Your task to perform on an android device: turn on showing notifications on the lock screen Image 0: 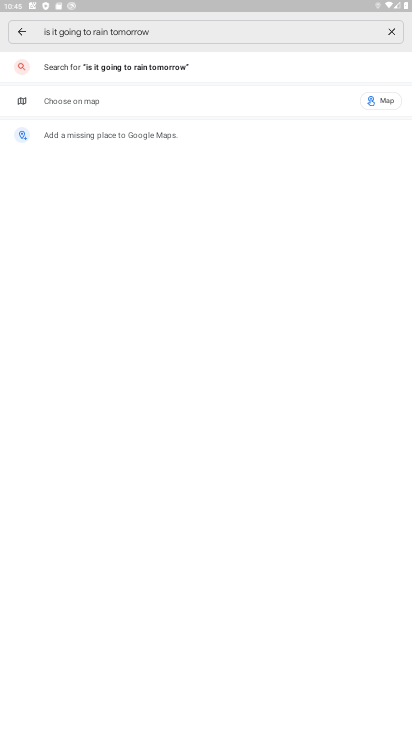
Step 0: press home button
Your task to perform on an android device: turn on showing notifications on the lock screen Image 1: 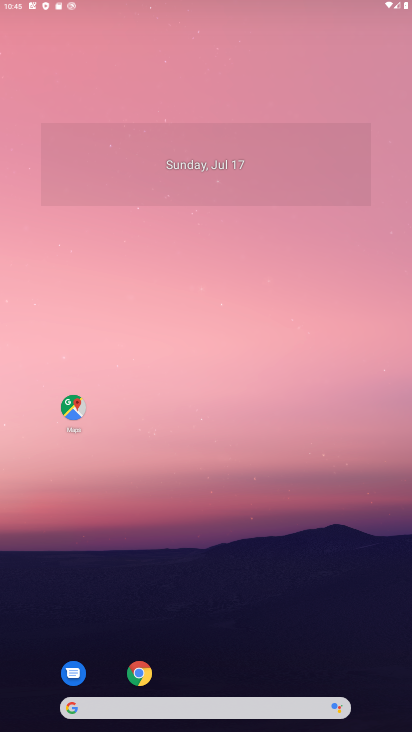
Step 1: drag from (206, 684) to (202, 128)
Your task to perform on an android device: turn on showing notifications on the lock screen Image 2: 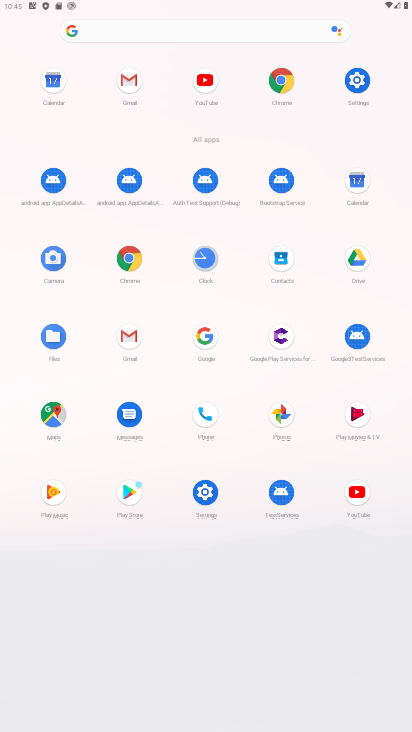
Step 2: click (365, 70)
Your task to perform on an android device: turn on showing notifications on the lock screen Image 3: 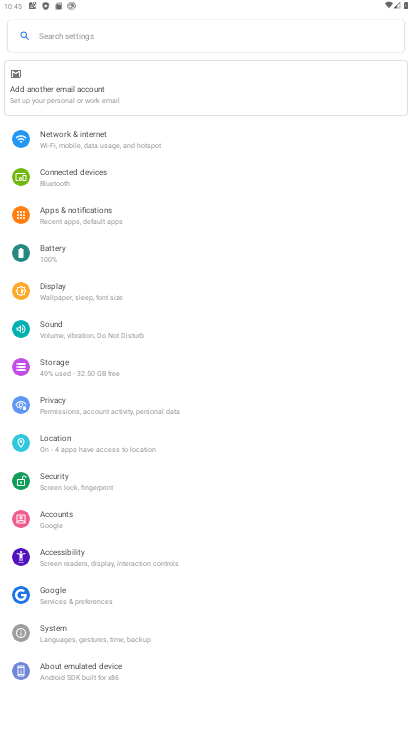
Step 3: click (83, 219)
Your task to perform on an android device: turn on showing notifications on the lock screen Image 4: 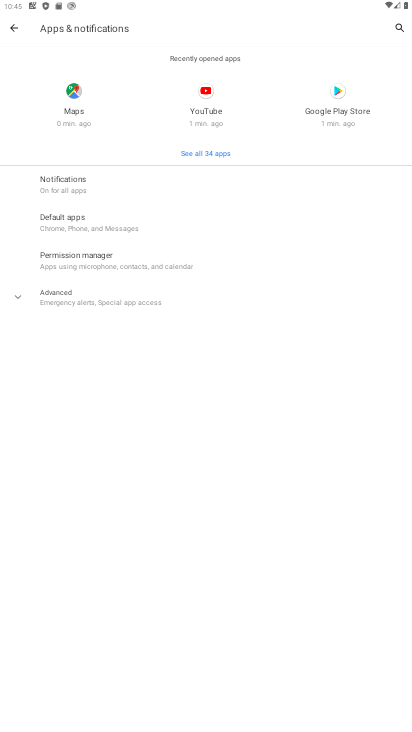
Step 4: click (94, 195)
Your task to perform on an android device: turn on showing notifications on the lock screen Image 5: 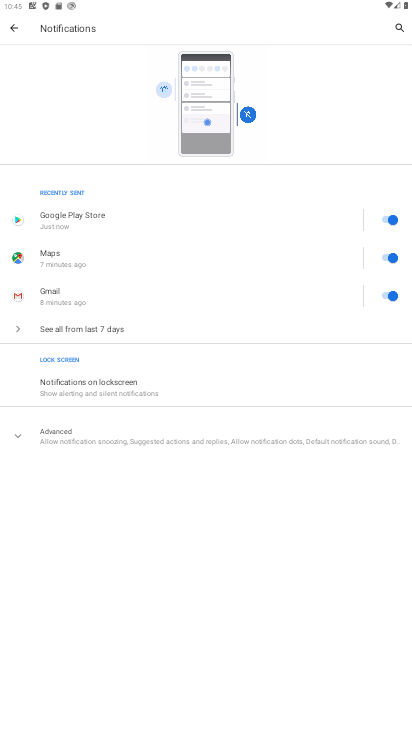
Step 5: click (118, 392)
Your task to perform on an android device: turn on showing notifications on the lock screen Image 6: 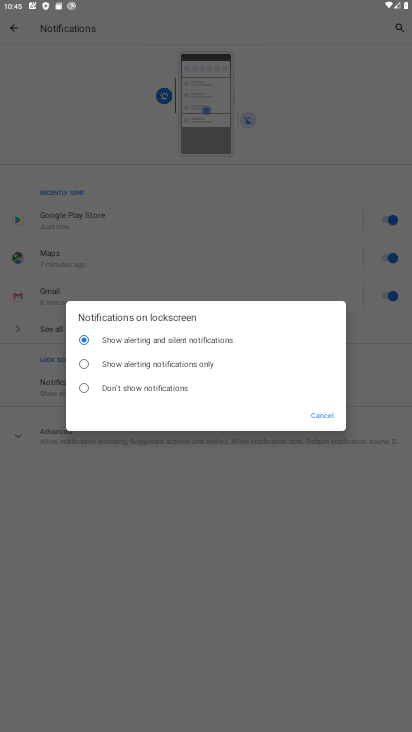
Step 6: task complete